Your task to perform on an android device: Go to internet settings Image 0: 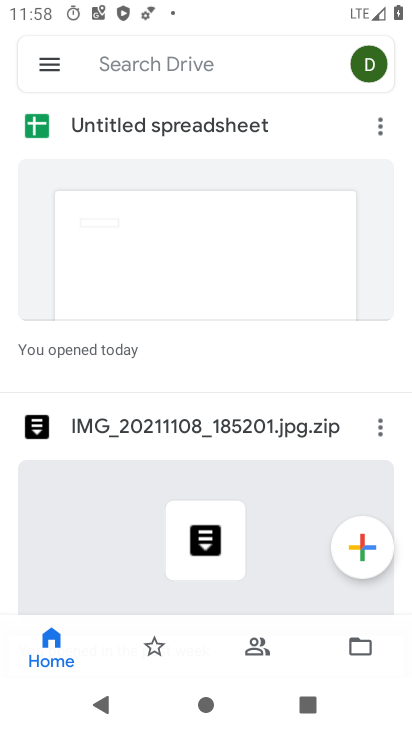
Step 0: press home button
Your task to perform on an android device: Go to internet settings Image 1: 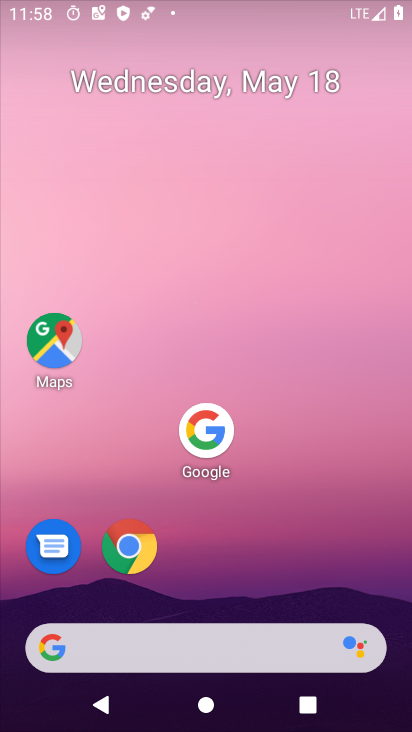
Step 1: drag from (255, 556) to (236, 51)
Your task to perform on an android device: Go to internet settings Image 2: 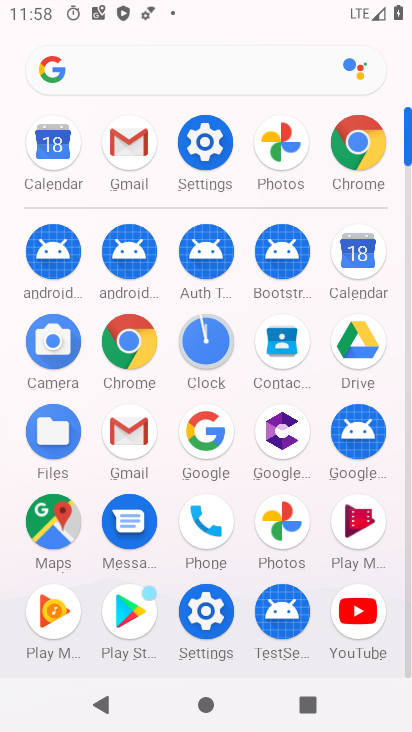
Step 2: click (205, 130)
Your task to perform on an android device: Go to internet settings Image 3: 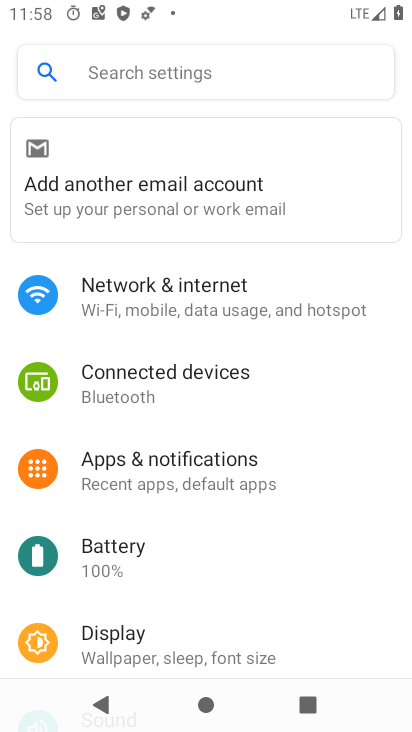
Step 3: click (234, 285)
Your task to perform on an android device: Go to internet settings Image 4: 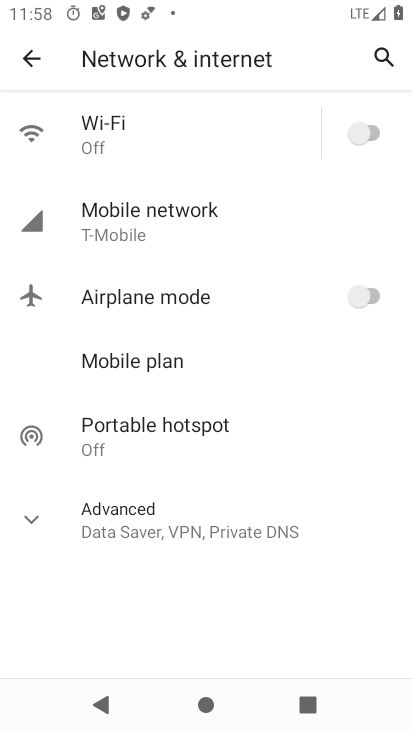
Step 4: click (162, 123)
Your task to perform on an android device: Go to internet settings Image 5: 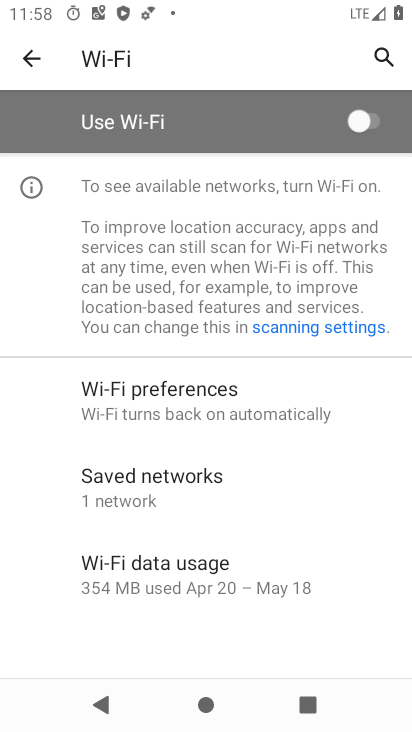
Step 5: click (373, 125)
Your task to perform on an android device: Go to internet settings Image 6: 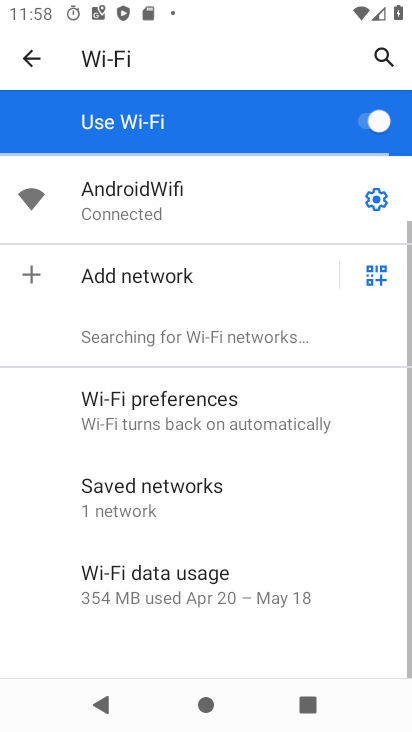
Step 6: click (381, 197)
Your task to perform on an android device: Go to internet settings Image 7: 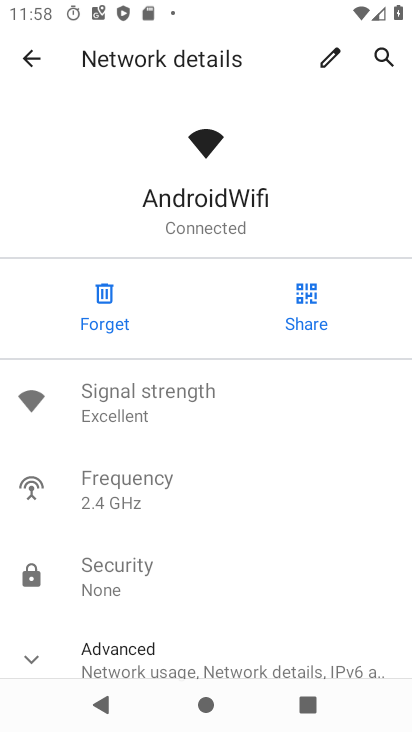
Step 7: task complete